Your task to perform on an android device: Open settings on Google Maps Image 0: 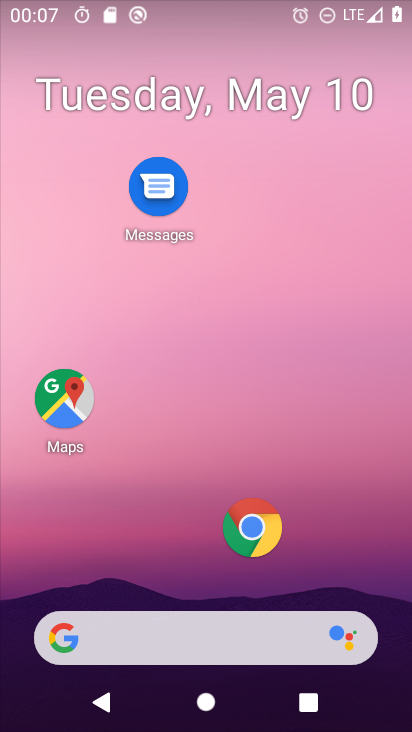
Step 0: click (62, 401)
Your task to perform on an android device: Open settings on Google Maps Image 1: 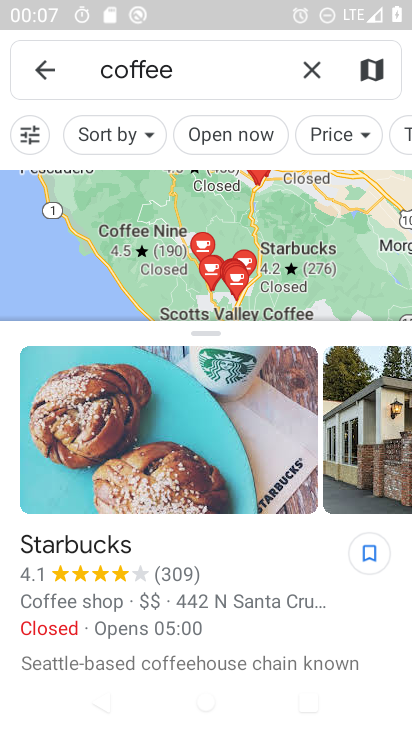
Step 1: click (309, 69)
Your task to perform on an android device: Open settings on Google Maps Image 2: 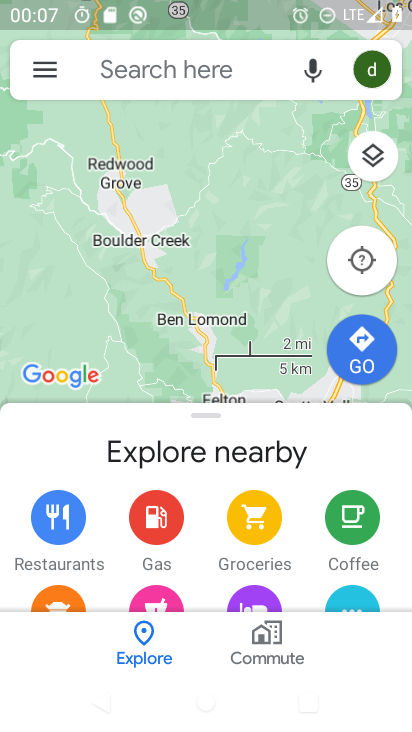
Step 2: click (49, 60)
Your task to perform on an android device: Open settings on Google Maps Image 3: 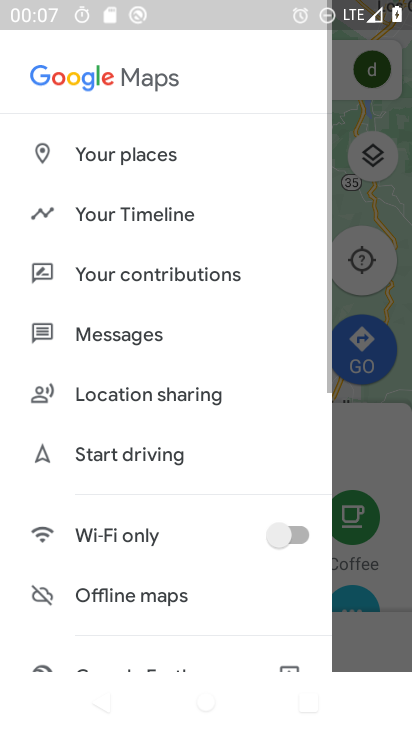
Step 3: drag from (168, 569) to (158, 110)
Your task to perform on an android device: Open settings on Google Maps Image 4: 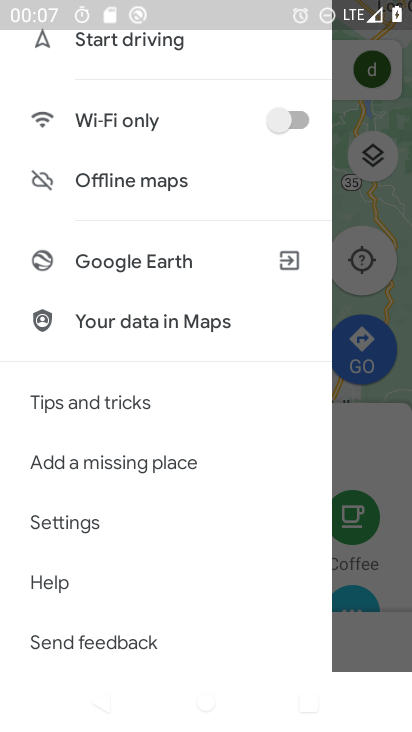
Step 4: click (76, 531)
Your task to perform on an android device: Open settings on Google Maps Image 5: 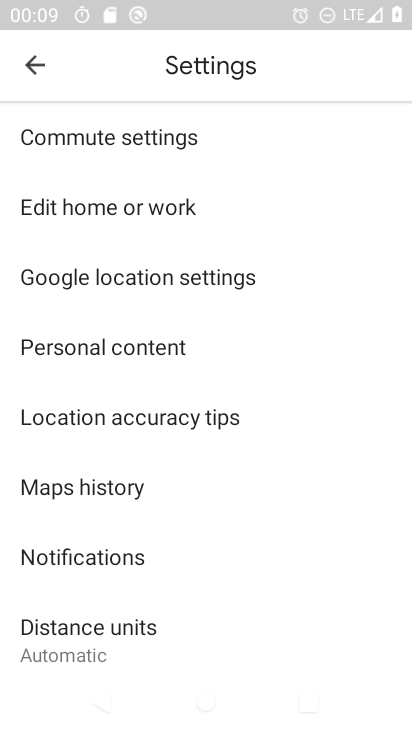
Step 5: task complete